Your task to perform on an android device: toggle wifi Image 0: 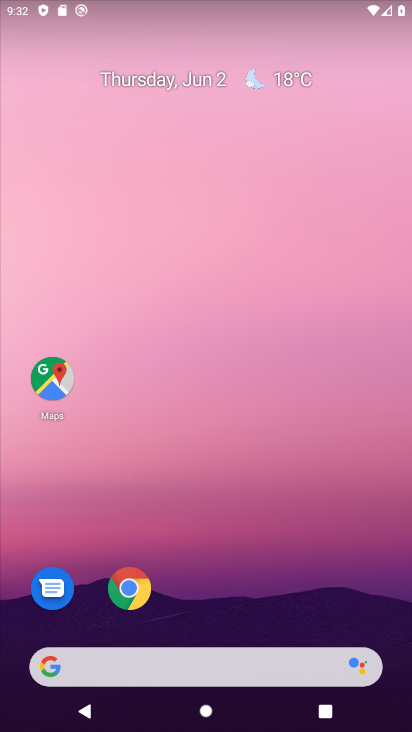
Step 0: drag from (258, 610) to (222, 72)
Your task to perform on an android device: toggle wifi Image 1: 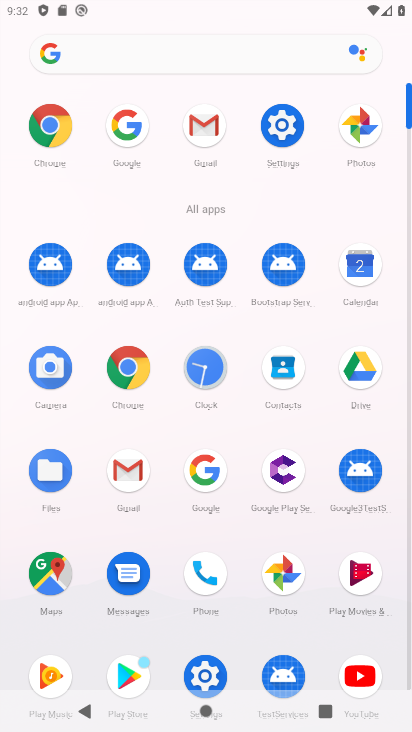
Step 1: click (268, 116)
Your task to perform on an android device: toggle wifi Image 2: 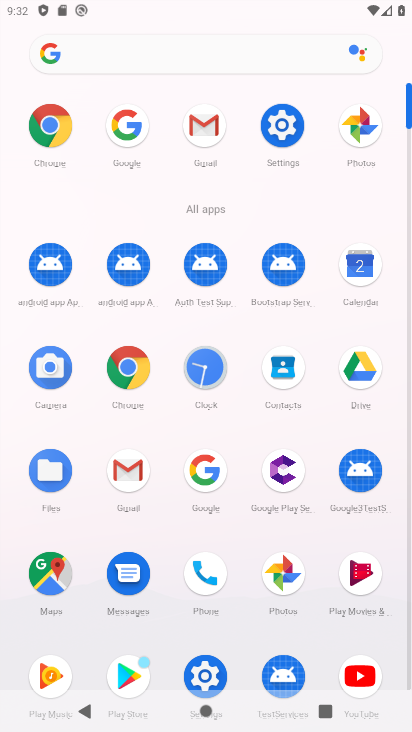
Step 2: click (287, 127)
Your task to perform on an android device: toggle wifi Image 3: 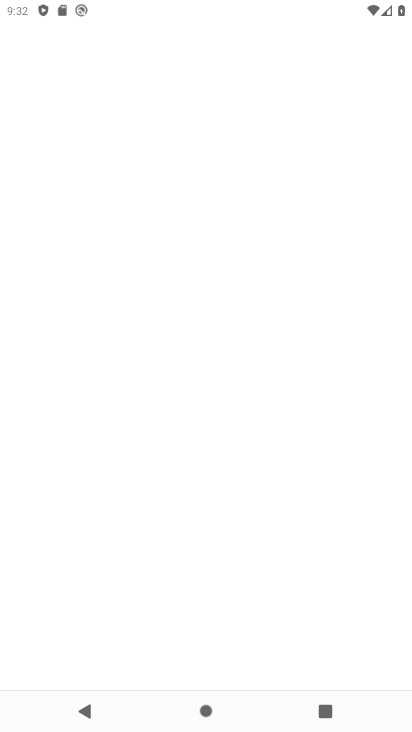
Step 3: click (287, 127)
Your task to perform on an android device: toggle wifi Image 4: 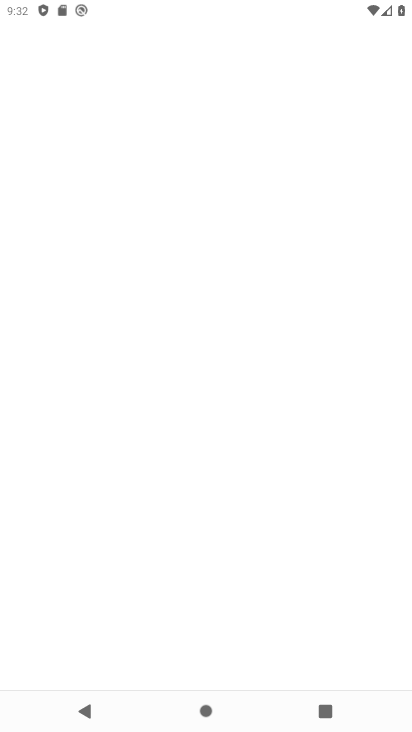
Step 4: click (287, 128)
Your task to perform on an android device: toggle wifi Image 5: 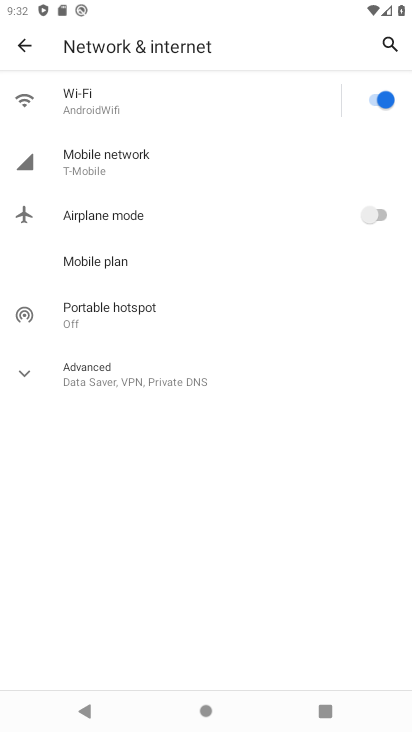
Step 5: task complete